Your task to perform on an android device: Go to display settings Image 0: 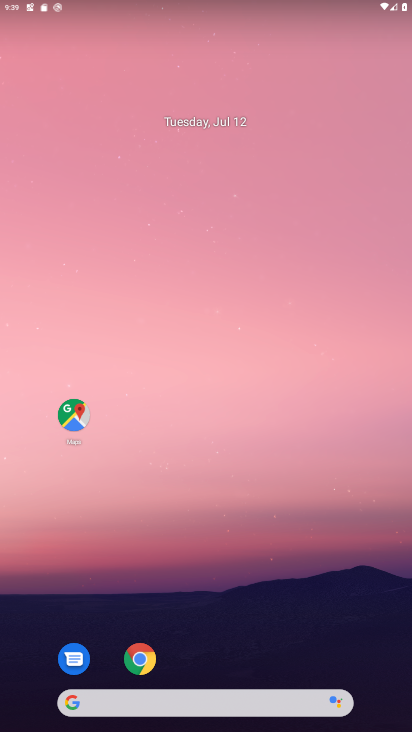
Step 0: drag from (241, 628) to (248, 156)
Your task to perform on an android device: Go to display settings Image 1: 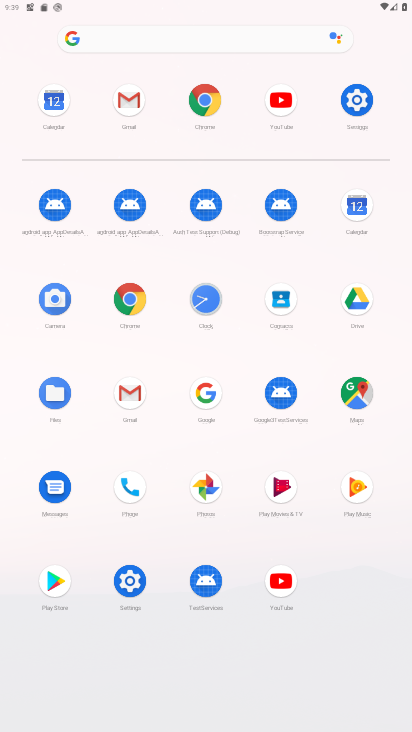
Step 1: drag from (289, 654) to (349, 586)
Your task to perform on an android device: Go to display settings Image 2: 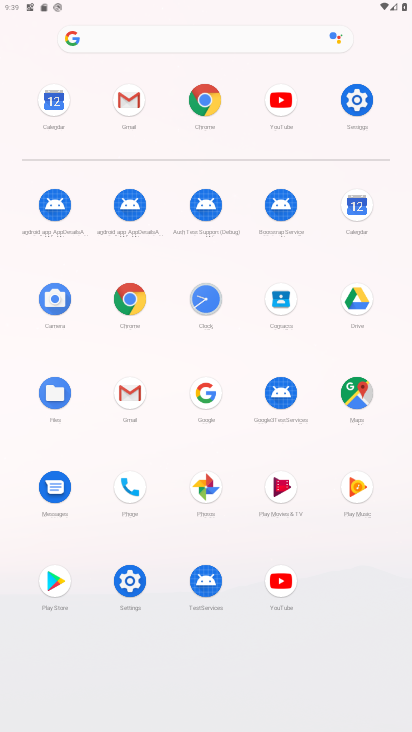
Step 2: click (138, 573)
Your task to perform on an android device: Go to display settings Image 3: 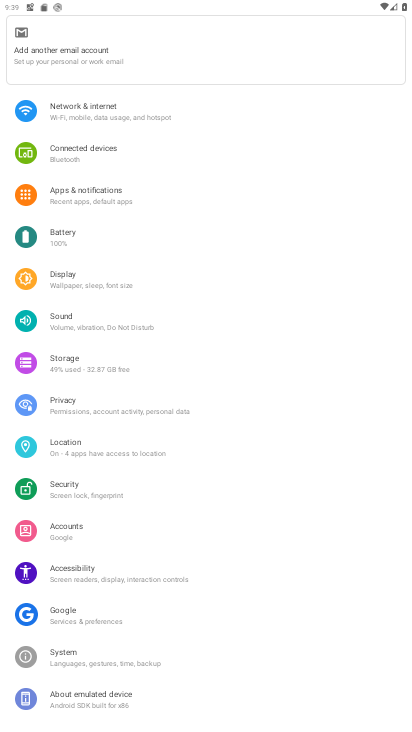
Step 3: click (57, 277)
Your task to perform on an android device: Go to display settings Image 4: 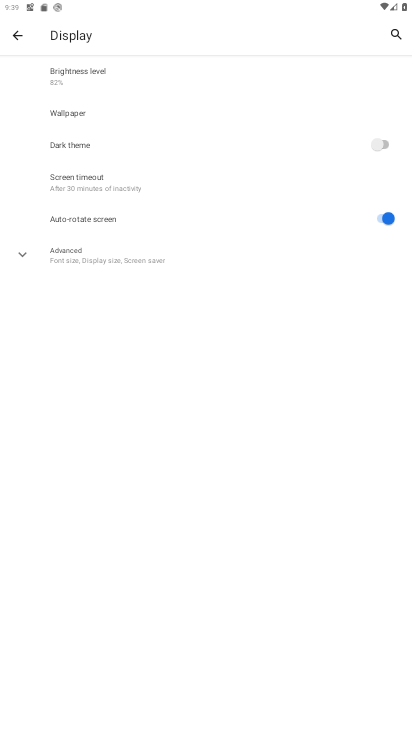
Step 4: task complete